Your task to perform on an android device: turn on the 24-hour format for clock Image 0: 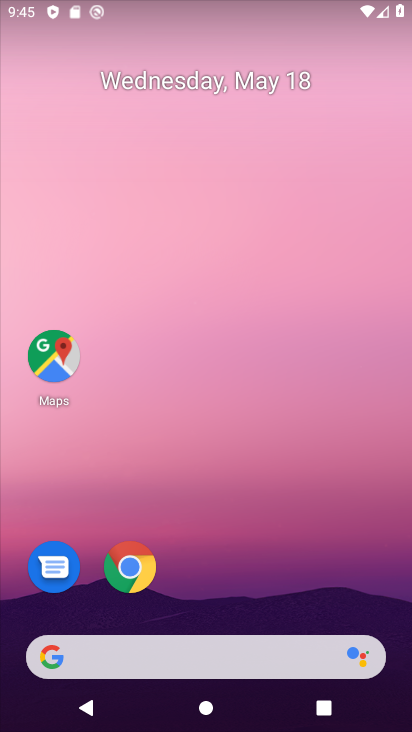
Step 0: drag from (198, 554) to (164, 191)
Your task to perform on an android device: turn on the 24-hour format for clock Image 1: 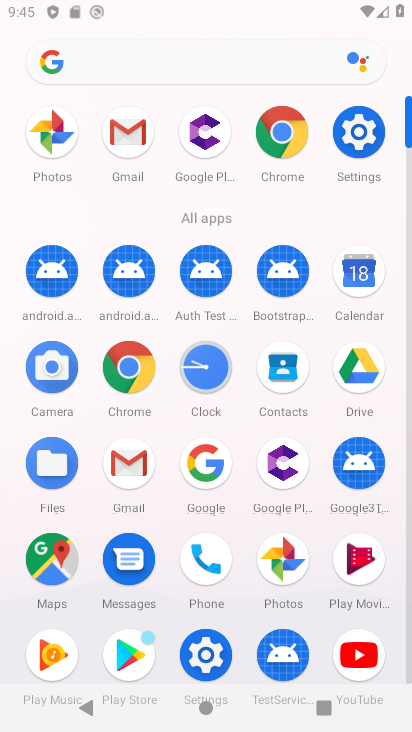
Step 1: click (204, 374)
Your task to perform on an android device: turn on the 24-hour format for clock Image 2: 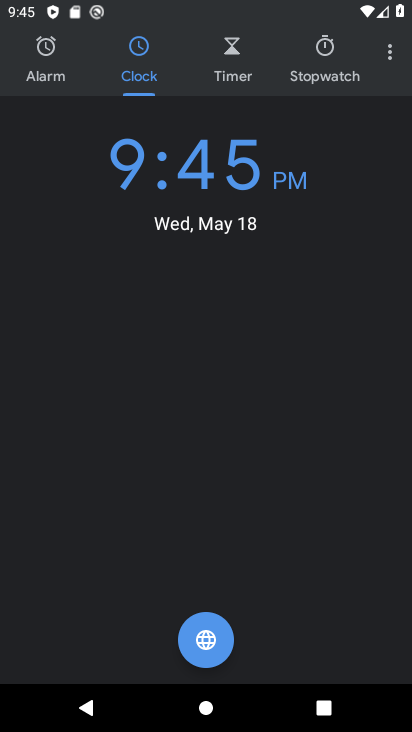
Step 2: click (396, 56)
Your task to perform on an android device: turn on the 24-hour format for clock Image 3: 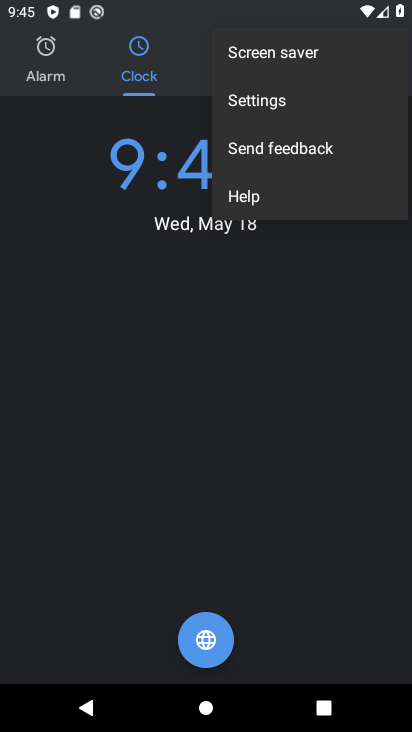
Step 3: click (273, 109)
Your task to perform on an android device: turn on the 24-hour format for clock Image 4: 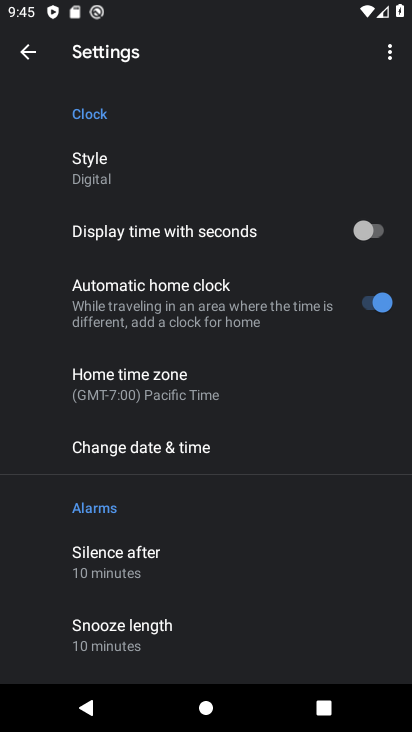
Step 4: click (193, 449)
Your task to perform on an android device: turn on the 24-hour format for clock Image 5: 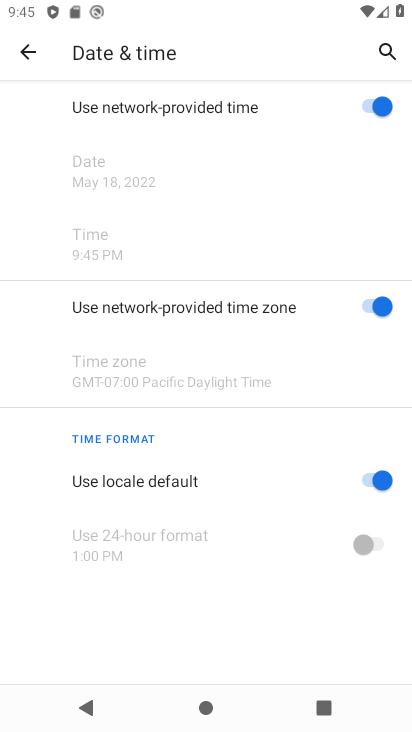
Step 5: click (380, 548)
Your task to perform on an android device: turn on the 24-hour format for clock Image 6: 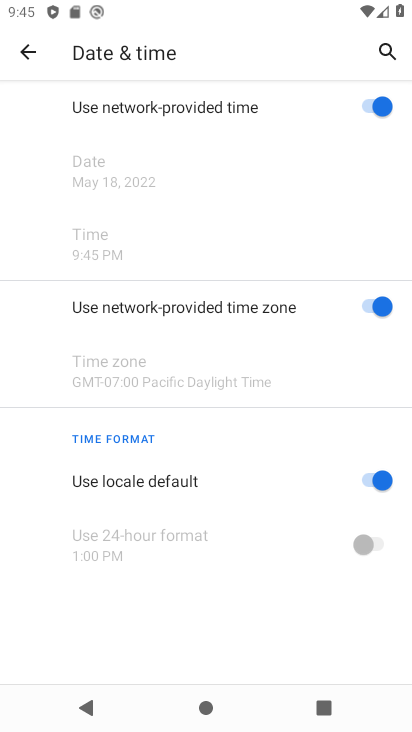
Step 6: click (367, 476)
Your task to perform on an android device: turn on the 24-hour format for clock Image 7: 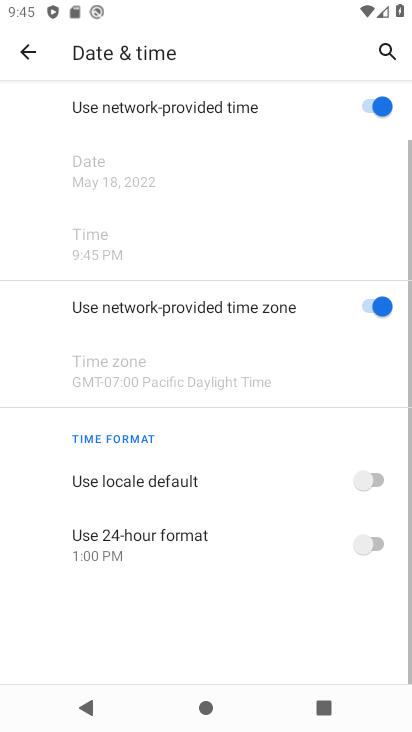
Step 7: click (386, 542)
Your task to perform on an android device: turn on the 24-hour format for clock Image 8: 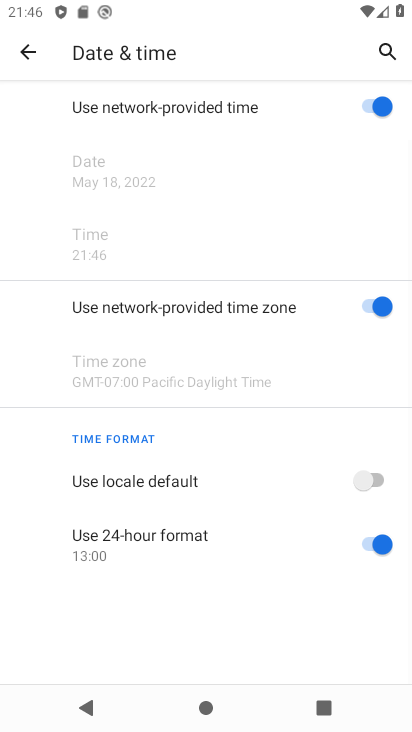
Step 8: task complete